Your task to perform on an android device: Open calendar and show me the third week of next month Image 0: 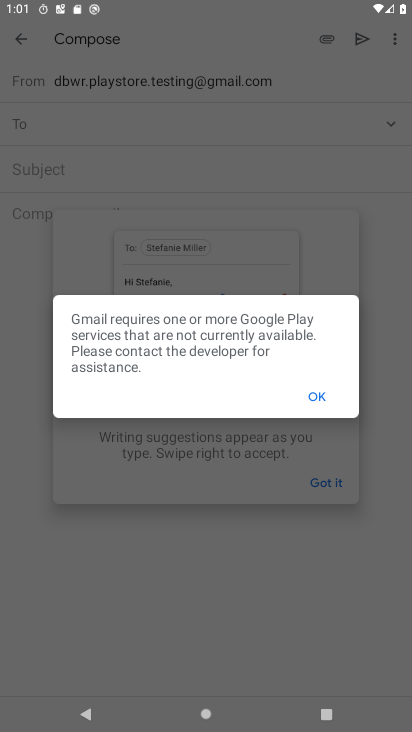
Step 0: press home button
Your task to perform on an android device: Open calendar and show me the third week of next month Image 1: 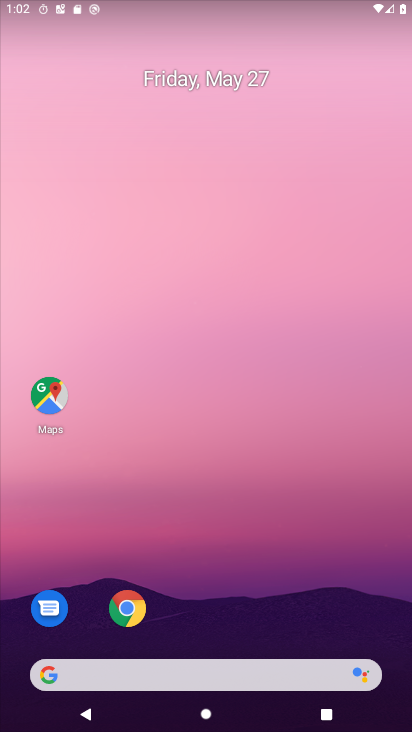
Step 1: drag from (377, 557) to (334, 138)
Your task to perform on an android device: Open calendar and show me the third week of next month Image 2: 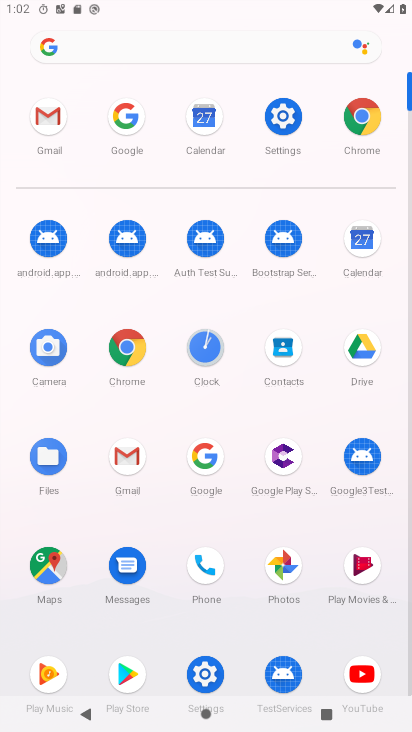
Step 2: click (296, 114)
Your task to perform on an android device: Open calendar and show me the third week of next month Image 3: 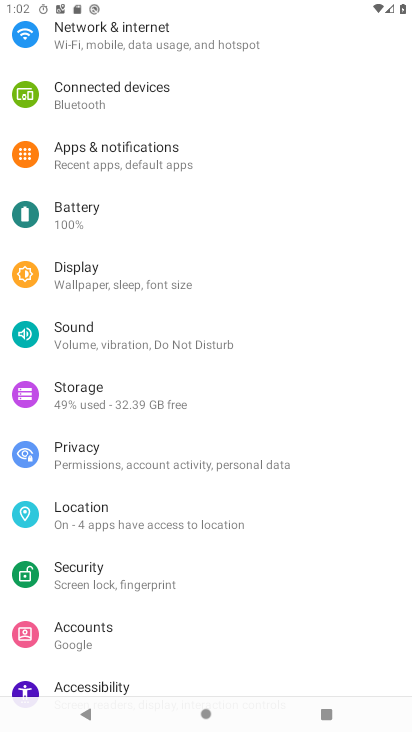
Step 3: drag from (288, 593) to (306, 281)
Your task to perform on an android device: Open calendar and show me the third week of next month Image 4: 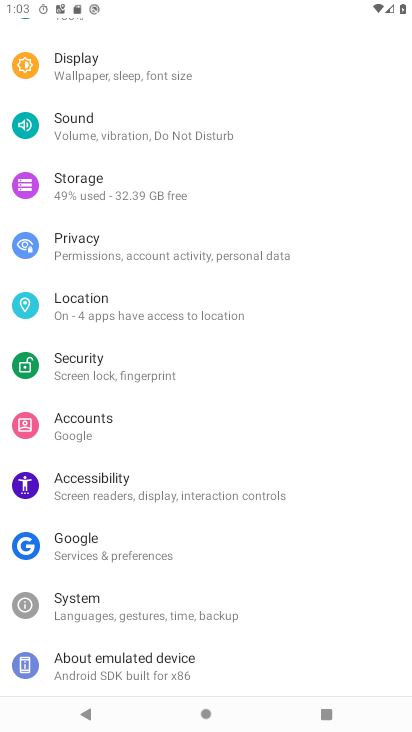
Step 4: press home button
Your task to perform on an android device: Open calendar and show me the third week of next month Image 5: 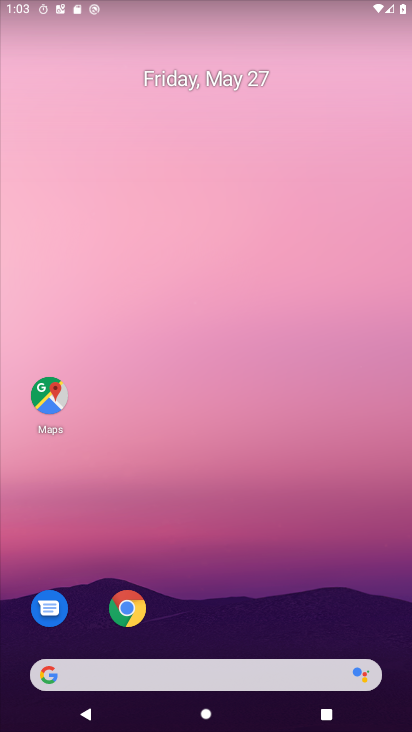
Step 5: drag from (375, 505) to (312, 194)
Your task to perform on an android device: Open calendar and show me the third week of next month Image 6: 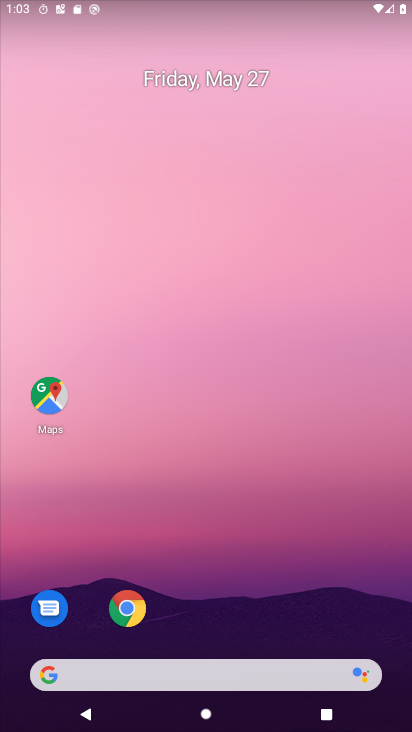
Step 6: drag from (405, 697) to (307, 149)
Your task to perform on an android device: Open calendar and show me the third week of next month Image 7: 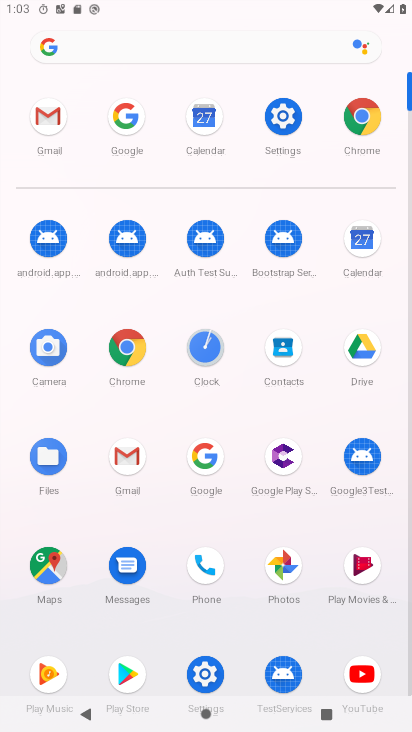
Step 7: click (362, 233)
Your task to perform on an android device: Open calendar and show me the third week of next month Image 8: 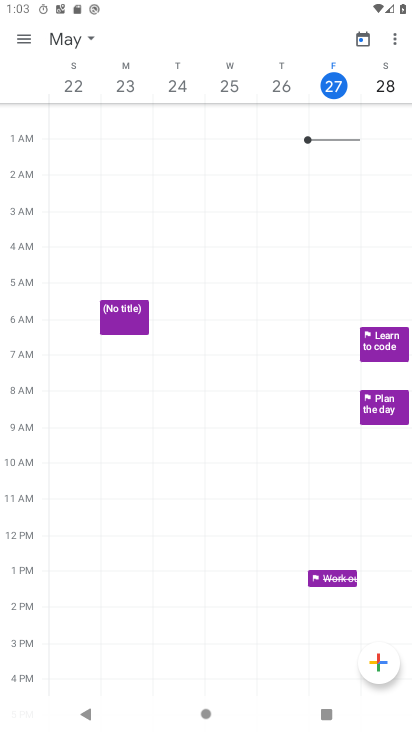
Step 8: click (86, 39)
Your task to perform on an android device: Open calendar and show me the third week of next month Image 9: 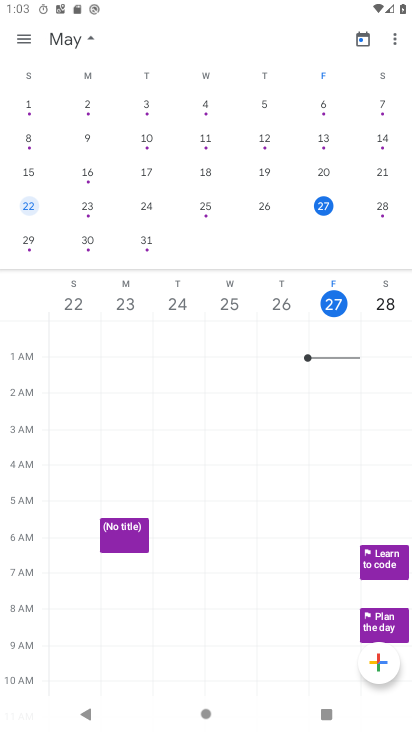
Step 9: drag from (402, 149) to (28, 124)
Your task to perform on an android device: Open calendar and show me the third week of next month Image 10: 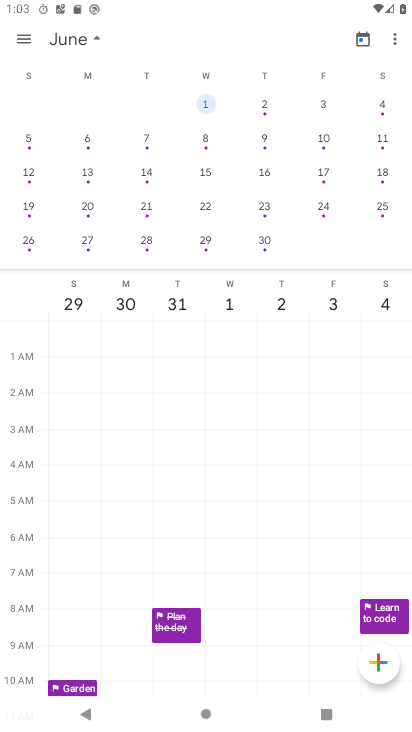
Step 10: click (207, 172)
Your task to perform on an android device: Open calendar and show me the third week of next month Image 11: 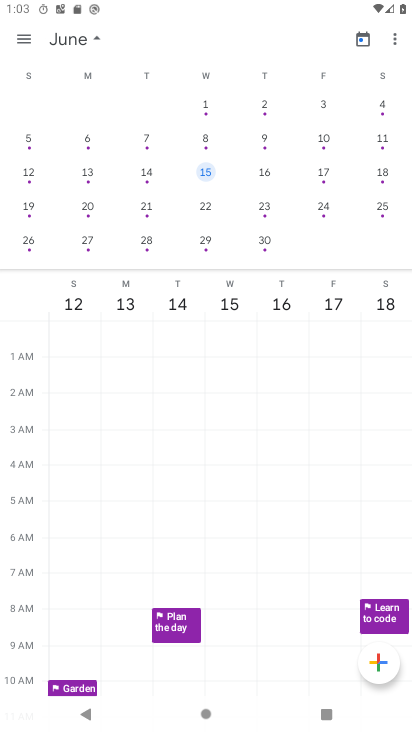
Step 11: click (19, 41)
Your task to perform on an android device: Open calendar and show me the third week of next month Image 12: 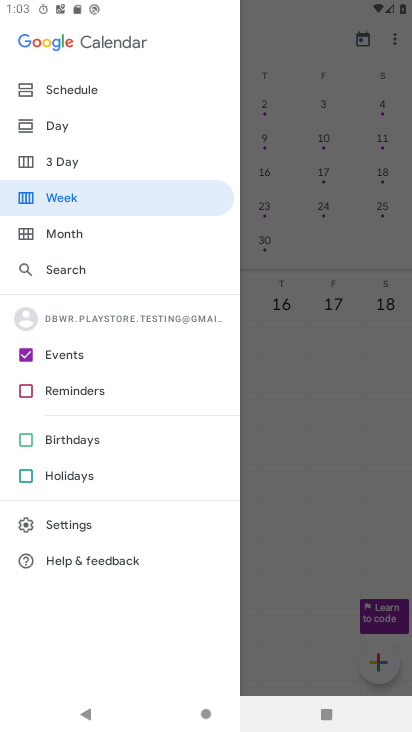
Step 12: click (52, 203)
Your task to perform on an android device: Open calendar and show me the third week of next month Image 13: 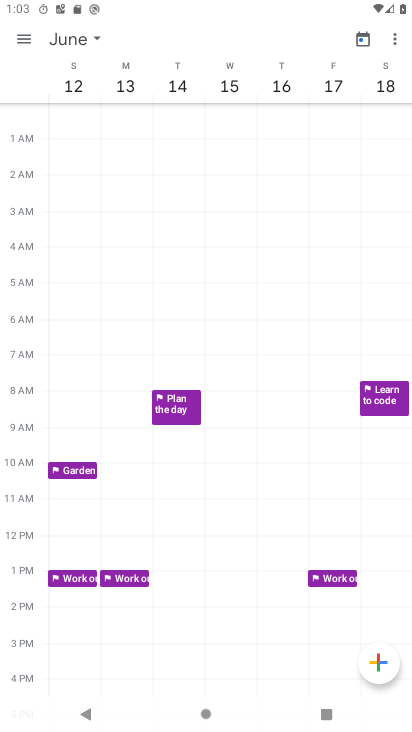
Step 13: task complete